Your task to perform on an android device: change the clock display to show seconds Image 0: 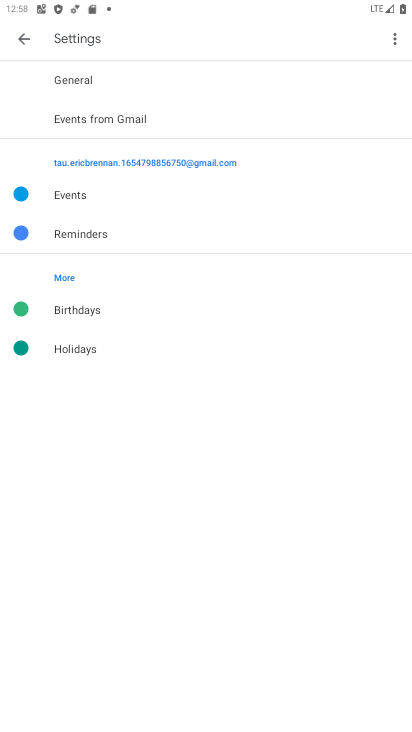
Step 0: press home button
Your task to perform on an android device: change the clock display to show seconds Image 1: 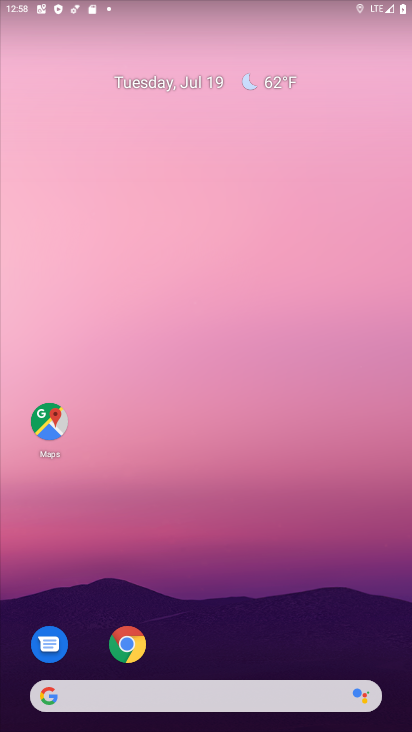
Step 1: drag from (222, 572) to (120, 146)
Your task to perform on an android device: change the clock display to show seconds Image 2: 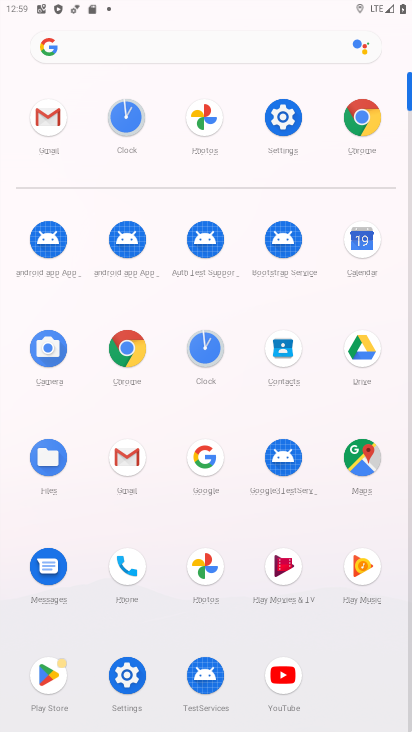
Step 2: click (205, 345)
Your task to perform on an android device: change the clock display to show seconds Image 3: 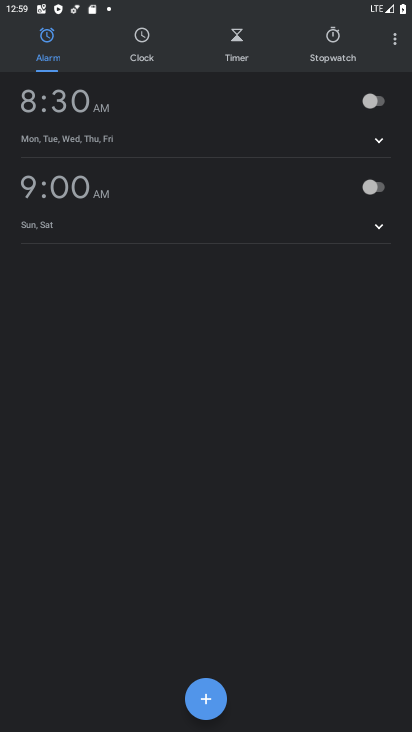
Step 3: click (397, 47)
Your task to perform on an android device: change the clock display to show seconds Image 4: 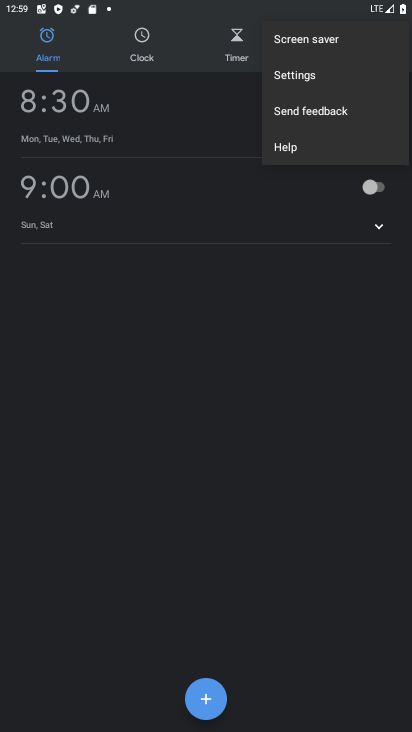
Step 4: click (295, 79)
Your task to perform on an android device: change the clock display to show seconds Image 5: 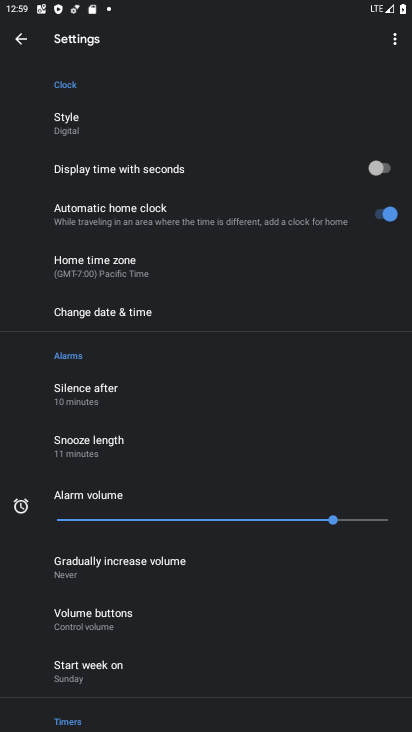
Step 5: click (384, 172)
Your task to perform on an android device: change the clock display to show seconds Image 6: 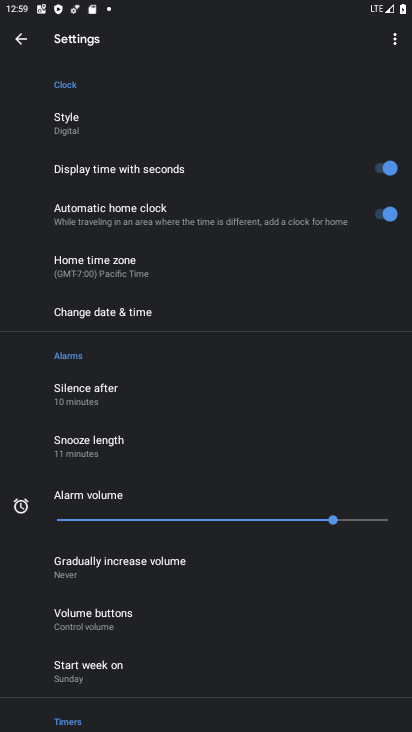
Step 6: task complete